Your task to perform on an android device: change timer sound Image 0: 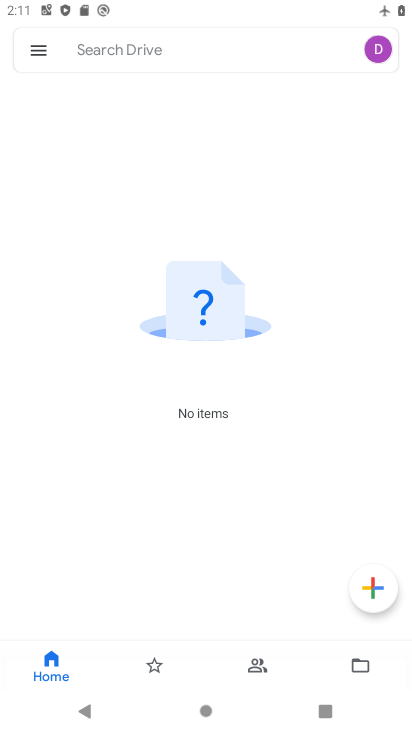
Step 0: press home button
Your task to perform on an android device: change timer sound Image 1: 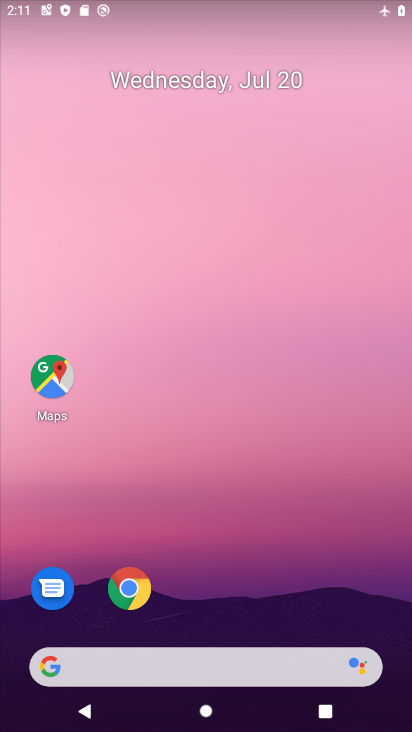
Step 1: drag from (285, 545) to (319, 29)
Your task to perform on an android device: change timer sound Image 2: 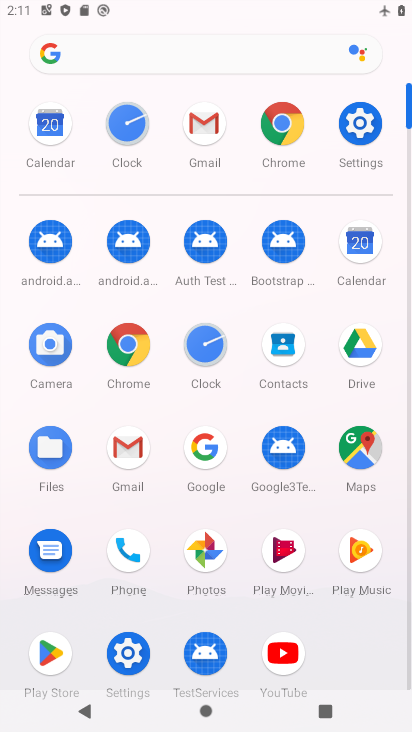
Step 2: click (199, 347)
Your task to perform on an android device: change timer sound Image 3: 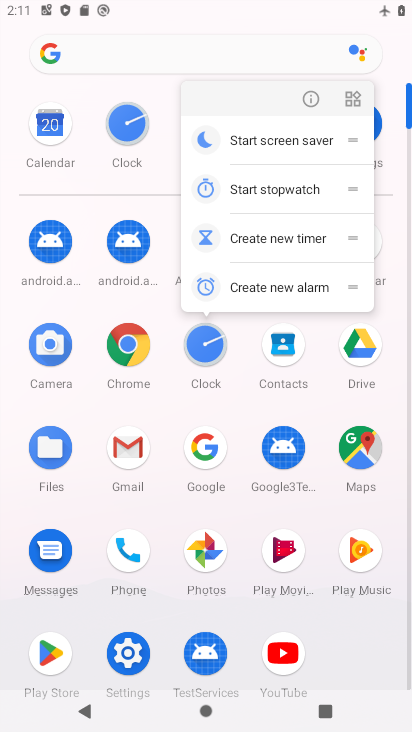
Step 3: click (199, 349)
Your task to perform on an android device: change timer sound Image 4: 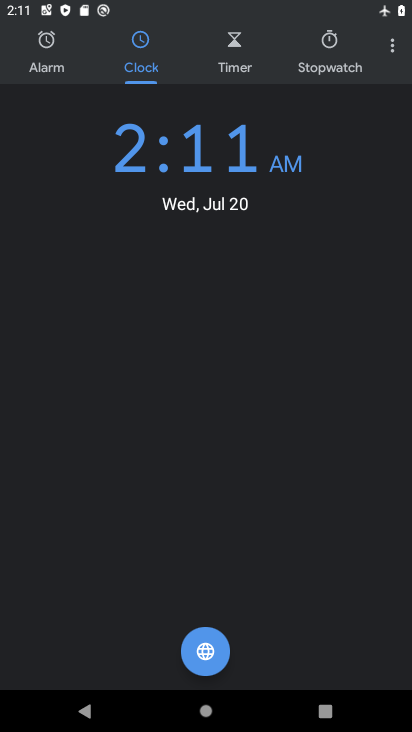
Step 4: click (388, 47)
Your task to perform on an android device: change timer sound Image 5: 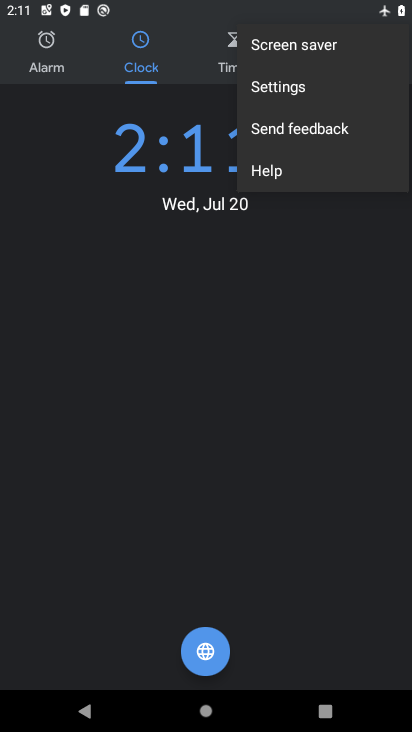
Step 5: click (293, 95)
Your task to perform on an android device: change timer sound Image 6: 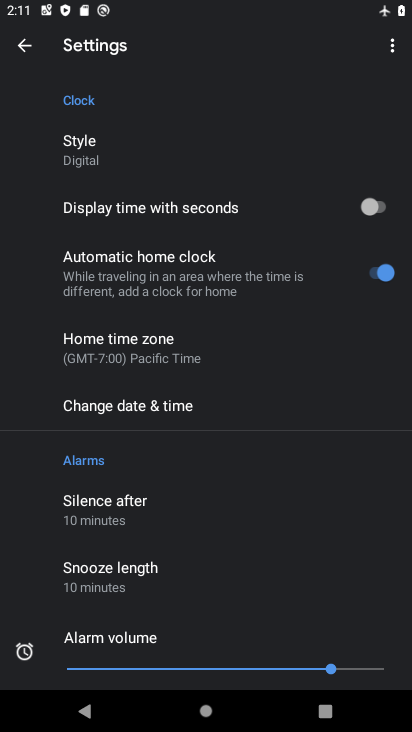
Step 6: drag from (196, 552) to (239, 217)
Your task to perform on an android device: change timer sound Image 7: 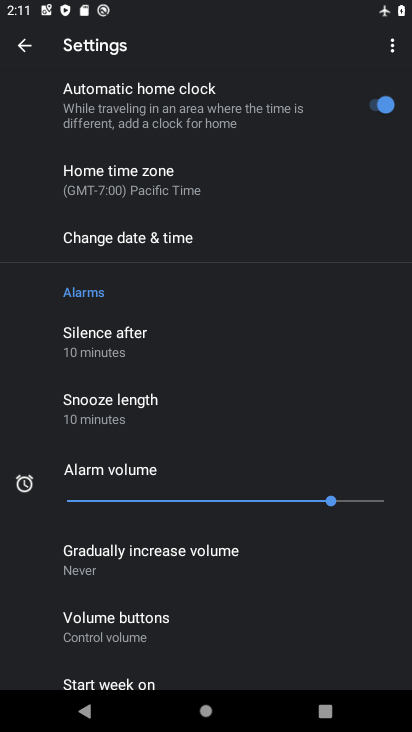
Step 7: drag from (204, 587) to (216, 194)
Your task to perform on an android device: change timer sound Image 8: 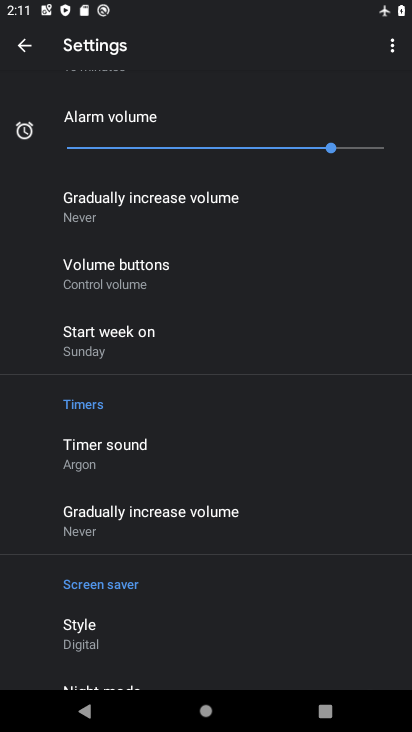
Step 8: click (128, 448)
Your task to perform on an android device: change timer sound Image 9: 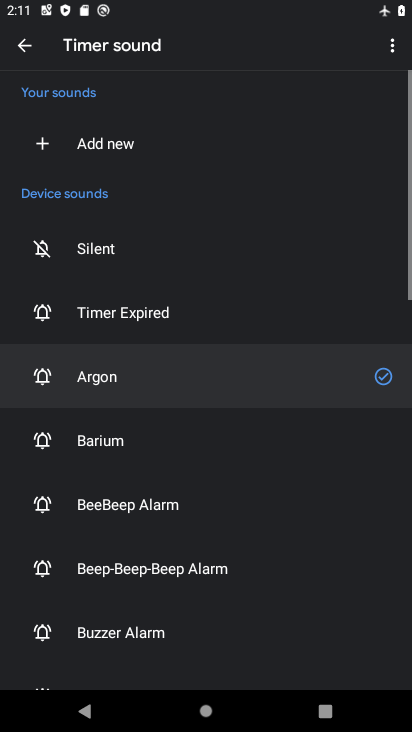
Step 9: click (106, 499)
Your task to perform on an android device: change timer sound Image 10: 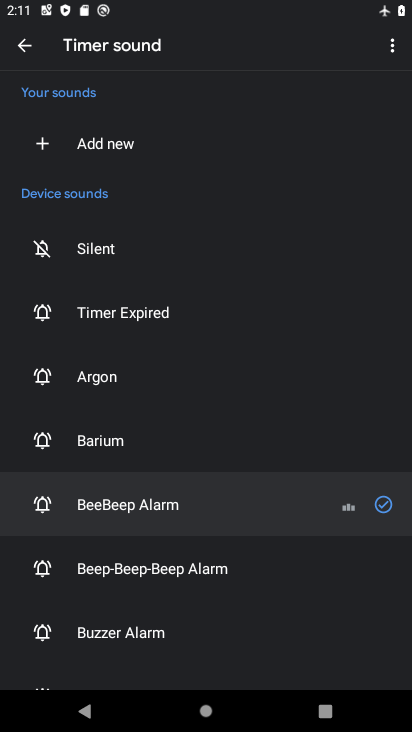
Step 10: task complete